Your task to perform on an android device: change timer sound Image 0: 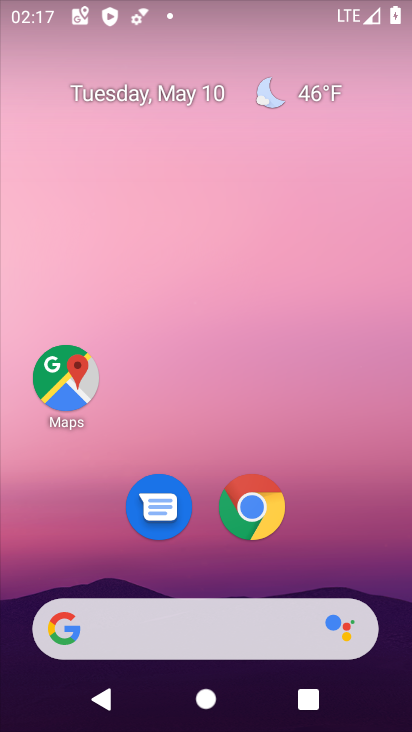
Step 0: drag from (248, 622) to (234, 198)
Your task to perform on an android device: change timer sound Image 1: 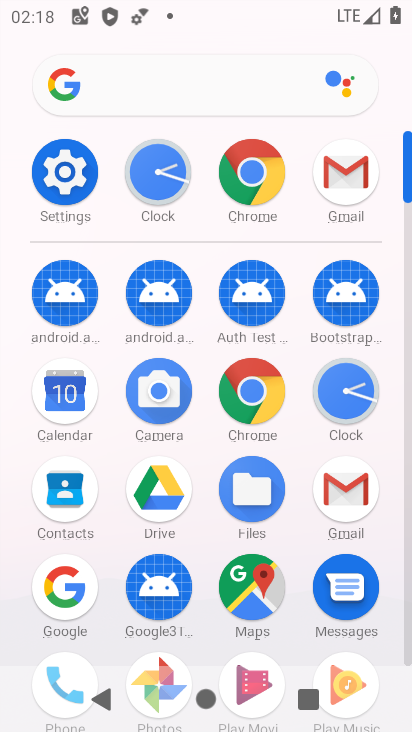
Step 1: click (349, 399)
Your task to perform on an android device: change timer sound Image 2: 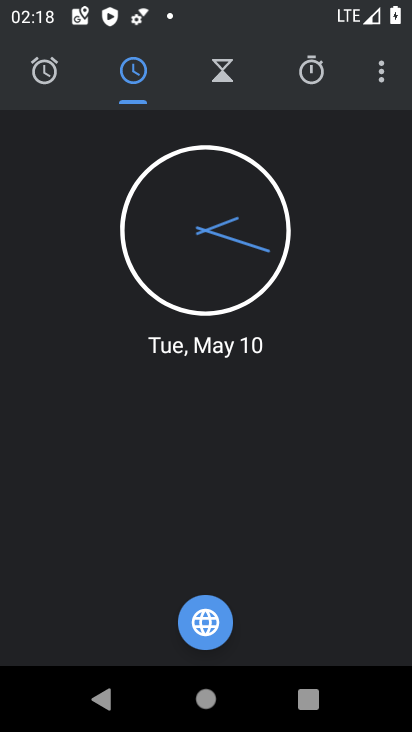
Step 2: click (377, 91)
Your task to perform on an android device: change timer sound Image 3: 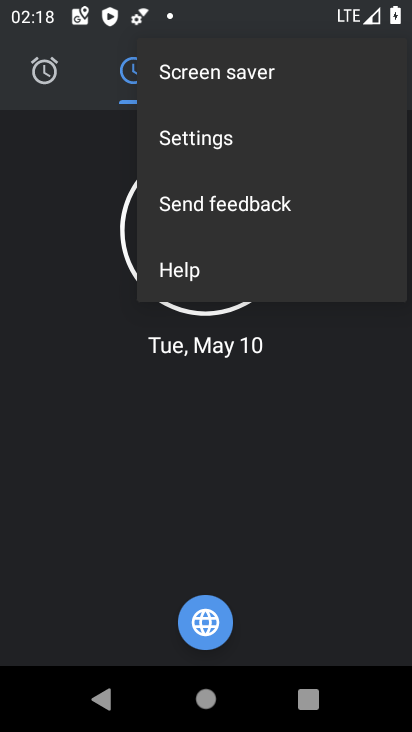
Step 3: click (224, 138)
Your task to perform on an android device: change timer sound Image 4: 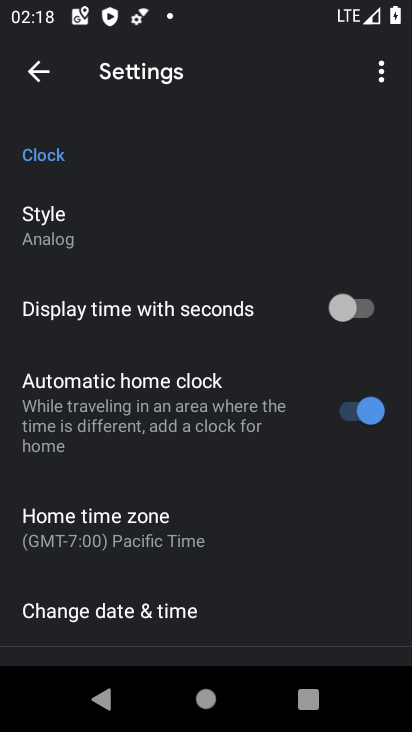
Step 4: drag from (168, 500) to (181, 167)
Your task to perform on an android device: change timer sound Image 5: 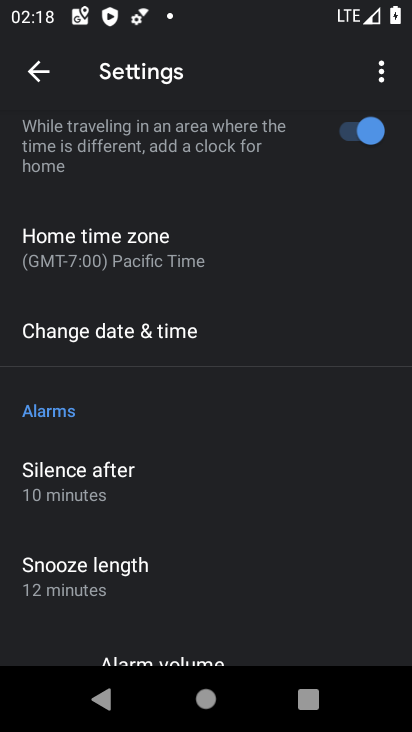
Step 5: drag from (229, 519) to (226, 139)
Your task to perform on an android device: change timer sound Image 6: 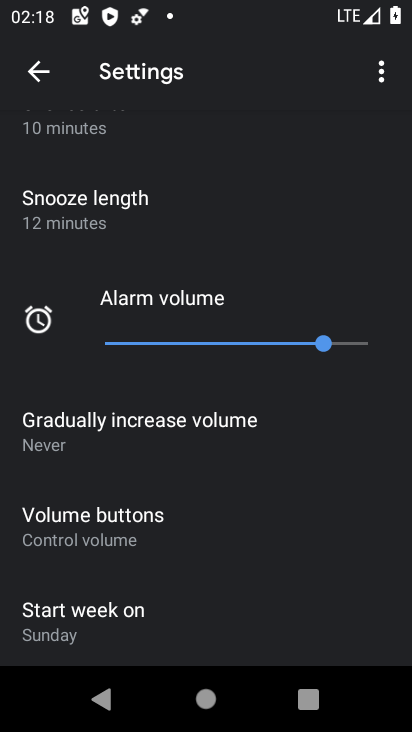
Step 6: drag from (232, 561) to (320, 220)
Your task to perform on an android device: change timer sound Image 7: 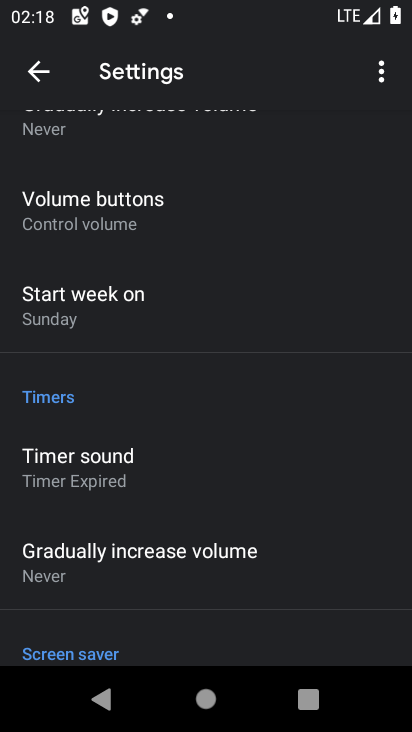
Step 7: click (188, 464)
Your task to perform on an android device: change timer sound Image 8: 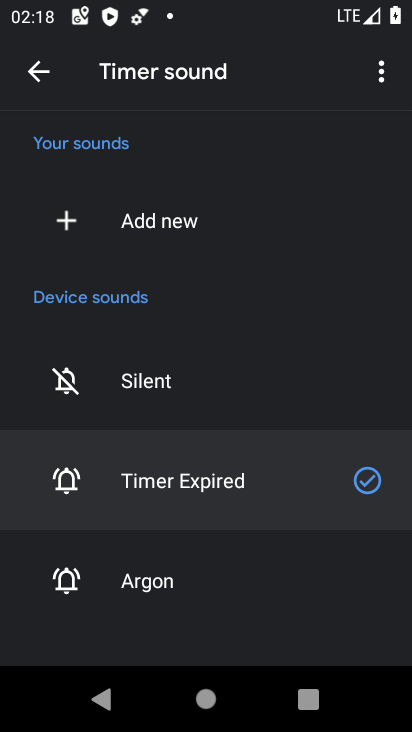
Step 8: click (173, 585)
Your task to perform on an android device: change timer sound Image 9: 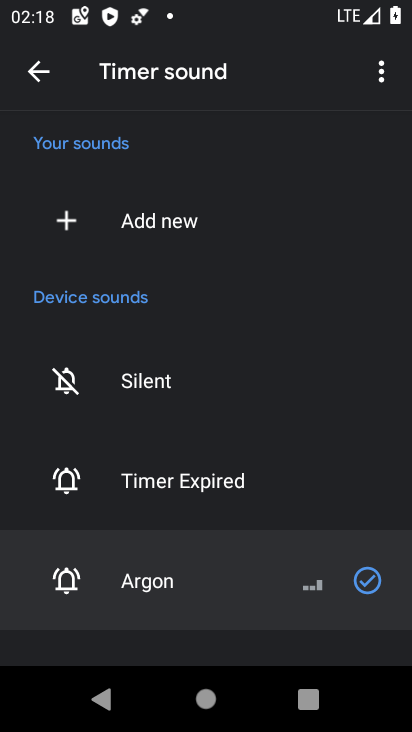
Step 9: task complete